Your task to perform on an android device: delete location history Image 0: 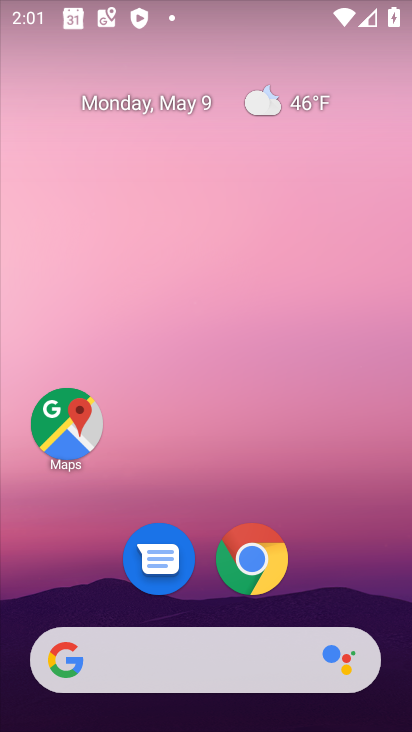
Step 0: press home button
Your task to perform on an android device: delete location history Image 1: 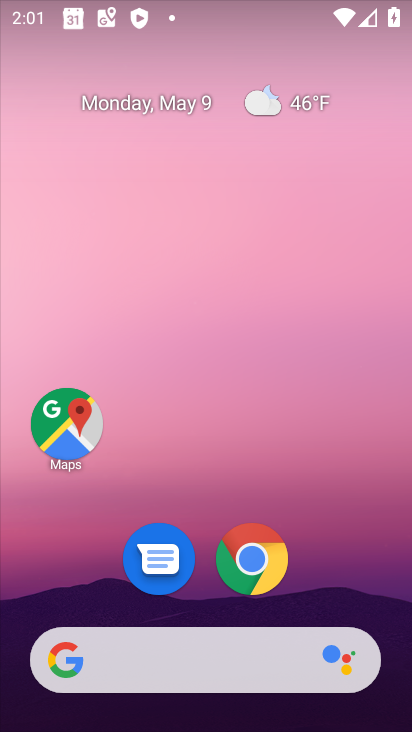
Step 1: drag from (349, 564) to (348, 210)
Your task to perform on an android device: delete location history Image 2: 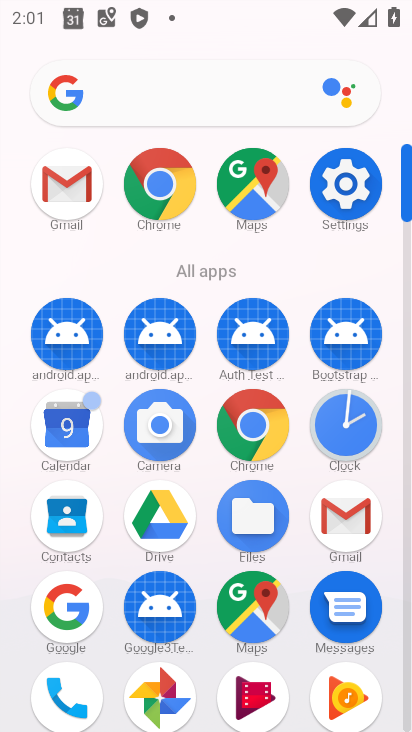
Step 2: click (378, 198)
Your task to perform on an android device: delete location history Image 3: 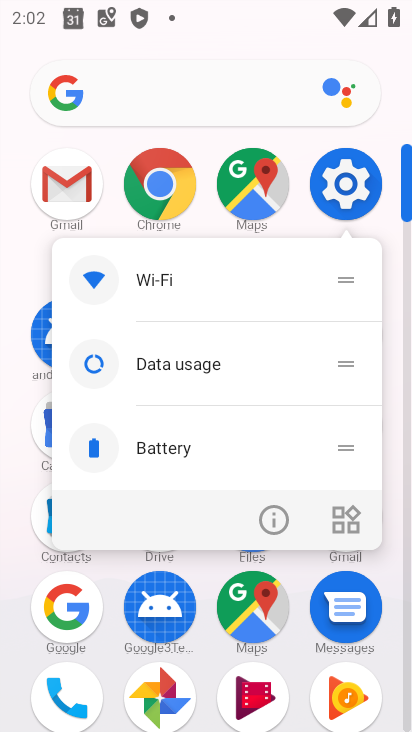
Step 3: click (371, 195)
Your task to perform on an android device: delete location history Image 4: 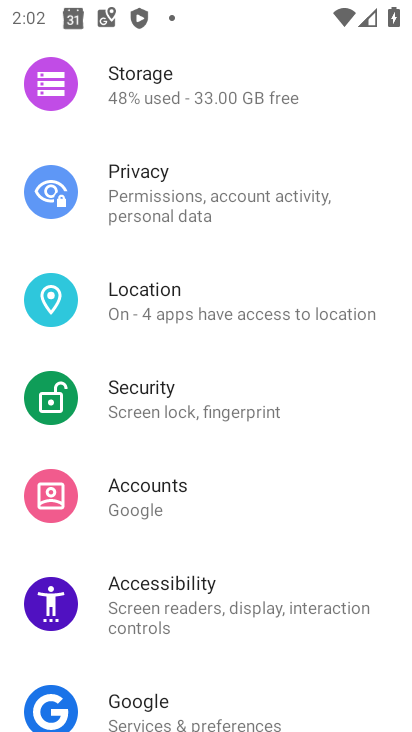
Step 4: click (241, 291)
Your task to perform on an android device: delete location history Image 5: 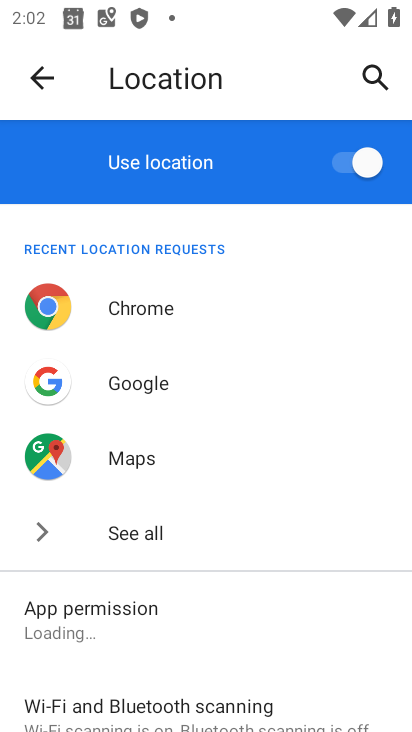
Step 5: drag from (336, 647) to (358, 382)
Your task to perform on an android device: delete location history Image 6: 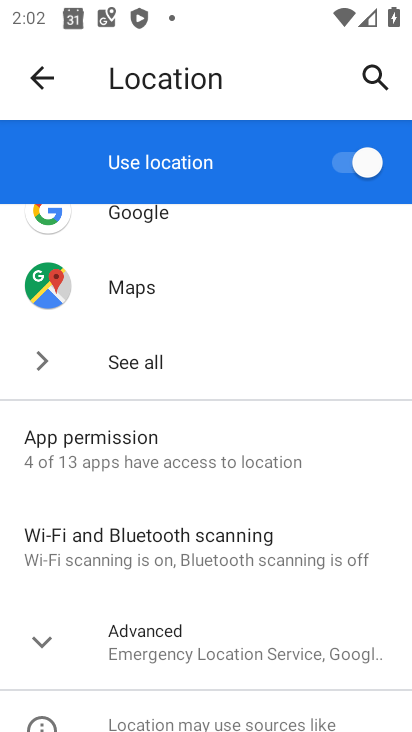
Step 6: drag from (335, 610) to (372, 314)
Your task to perform on an android device: delete location history Image 7: 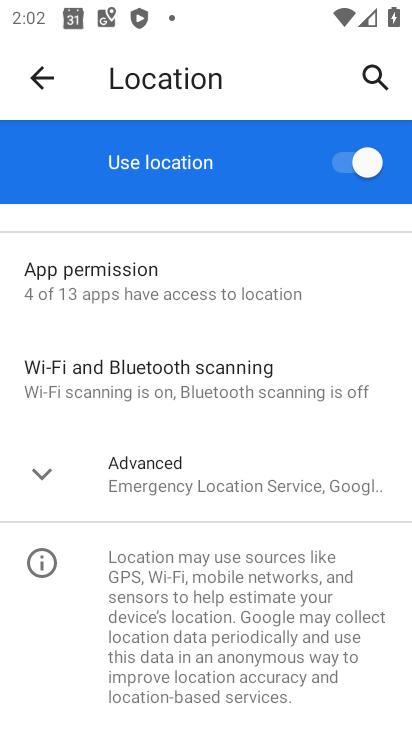
Step 7: click (348, 482)
Your task to perform on an android device: delete location history Image 8: 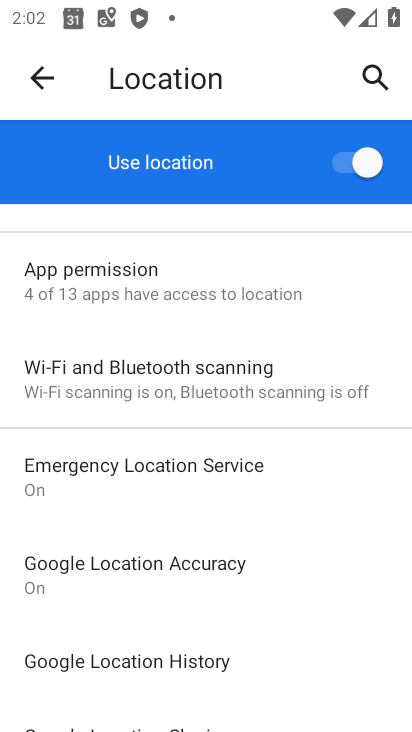
Step 8: drag from (323, 590) to (335, 361)
Your task to perform on an android device: delete location history Image 9: 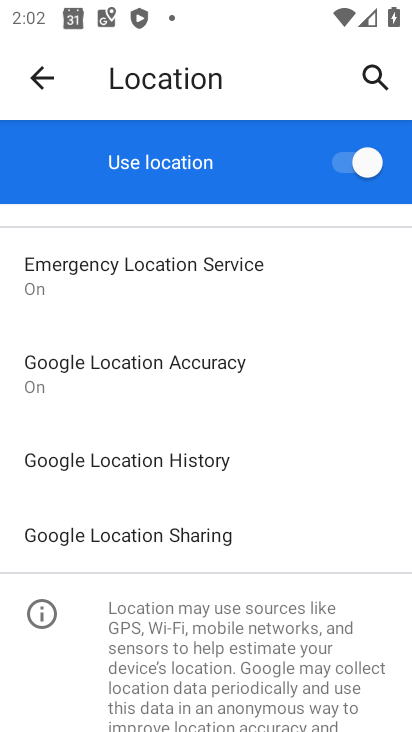
Step 9: click (194, 465)
Your task to perform on an android device: delete location history Image 10: 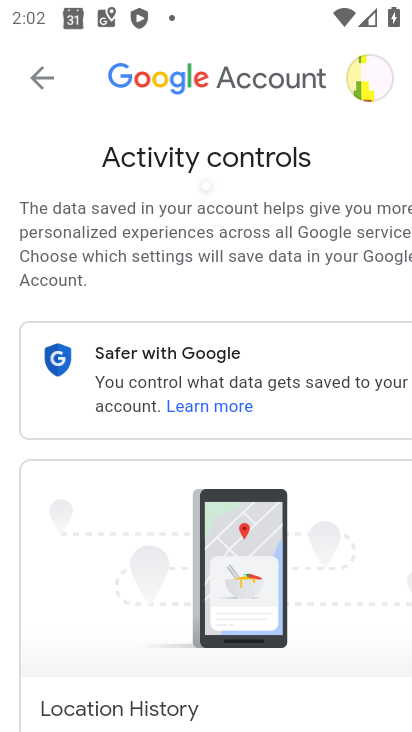
Step 10: drag from (212, 657) to (176, 343)
Your task to perform on an android device: delete location history Image 11: 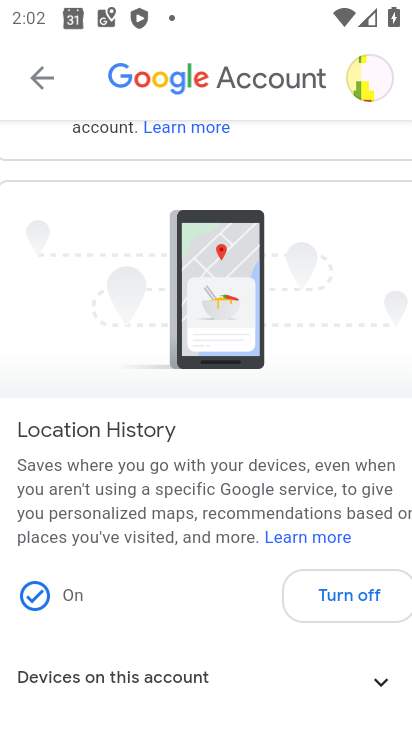
Step 11: drag from (222, 667) to (227, 275)
Your task to perform on an android device: delete location history Image 12: 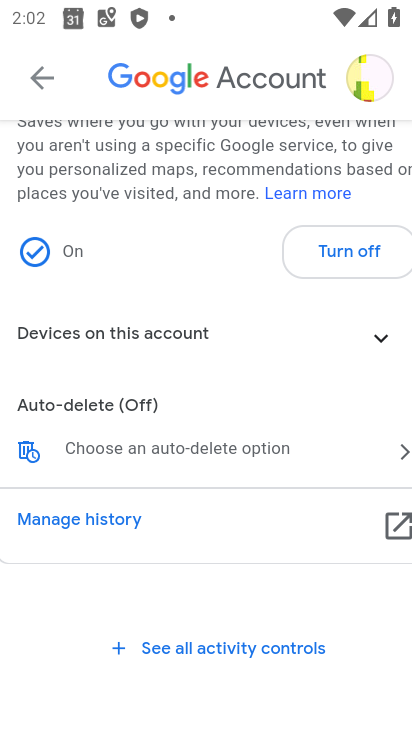
Step 12: click (171, 507)
Your task to perform on an android device: delete location history Image 13: 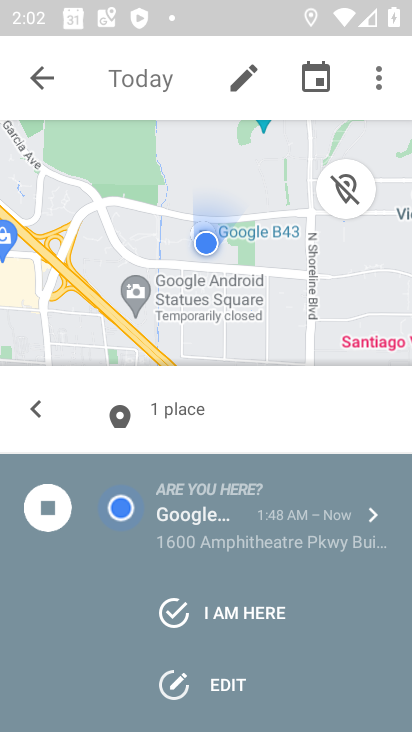
Step 13: click (379, 84)
Your task to perform on an android device: delete location history Image 14: 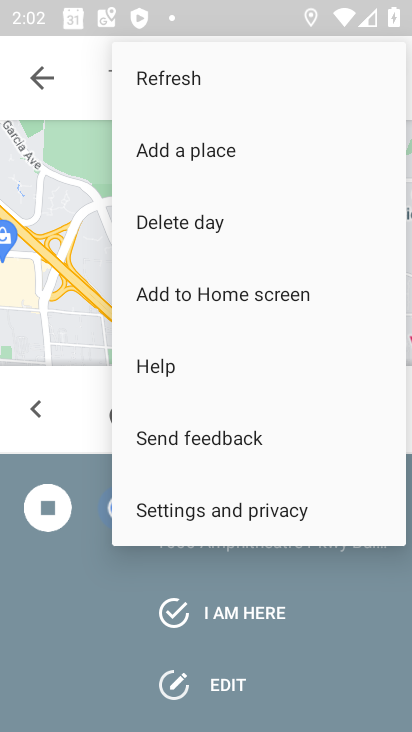
Step 14: click (214, 503)
Your task to perform on an android device: delete location history Image 15: 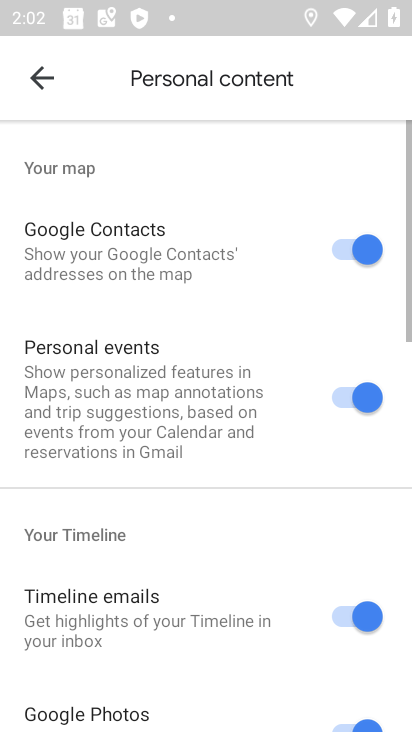
Step 15: drag from (221, 630) to (213, 299)
Your task to perform on an android device: delete location history Image 16: 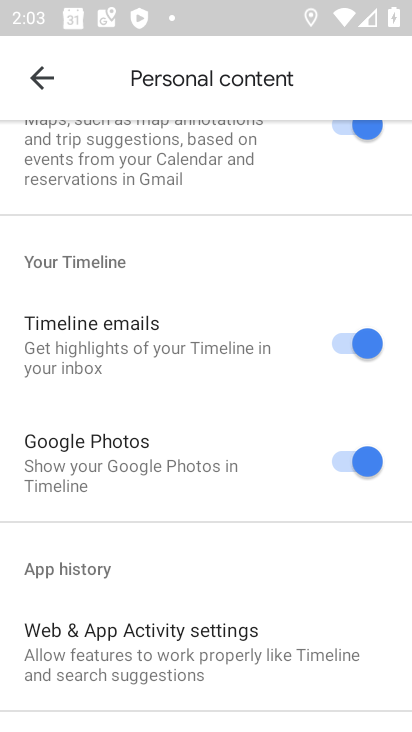
Step 16: drag from (249, 554) to (234, 344)
Your task to perform on an android device: delete location history Image 17: 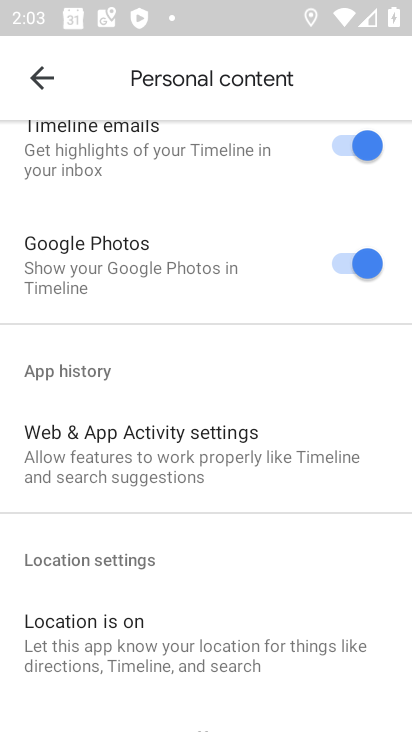
Step 17: drag from (234, 570) to (235, 367)
Your task to perform on an android device: delete location history Image 18: 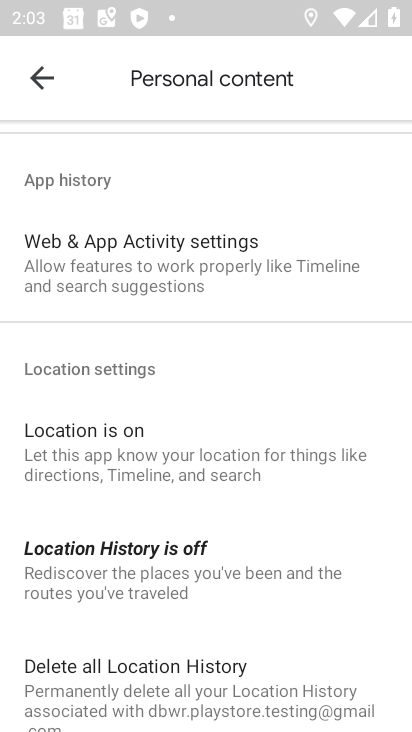
Step 18: click (227, 674)
Your task to perform on an android device: delete location history Image 19: 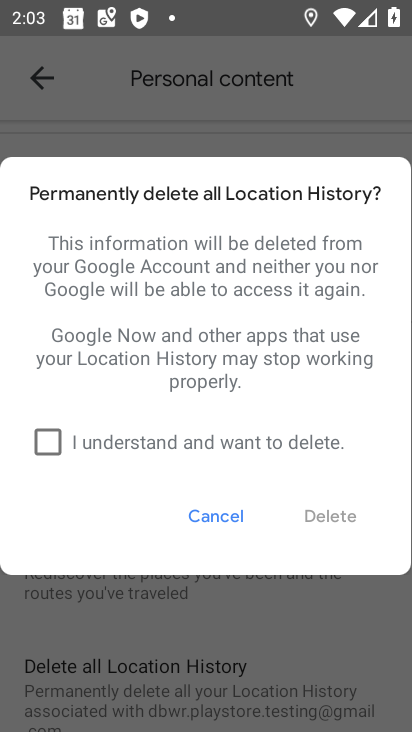
Step 19: click (48, 442)
Your task to perform on an android device: delete location history Image 20: 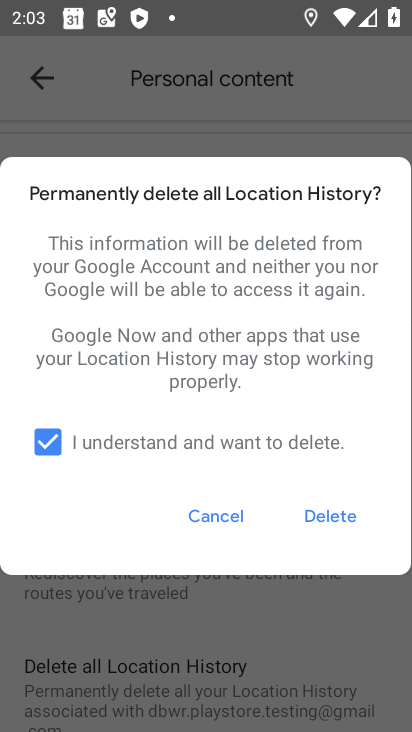
Step 20: click (333, 528)
Your task to perform on an android device: delete location history Image 21: 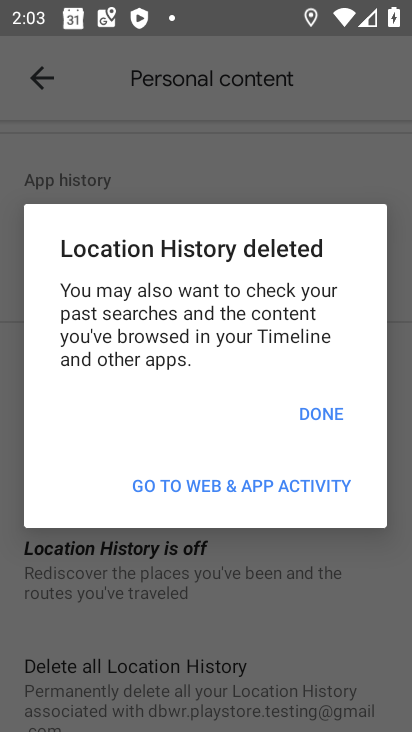
Step 21: click (312, 422)
Your task to perform on an android device: delete location history Image 22: 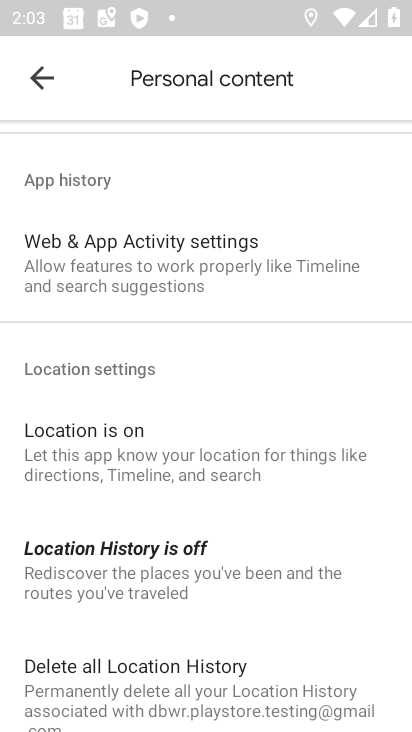
Step 22: task complete